Your task to perform on an android device: Open CNN.com Image 0: 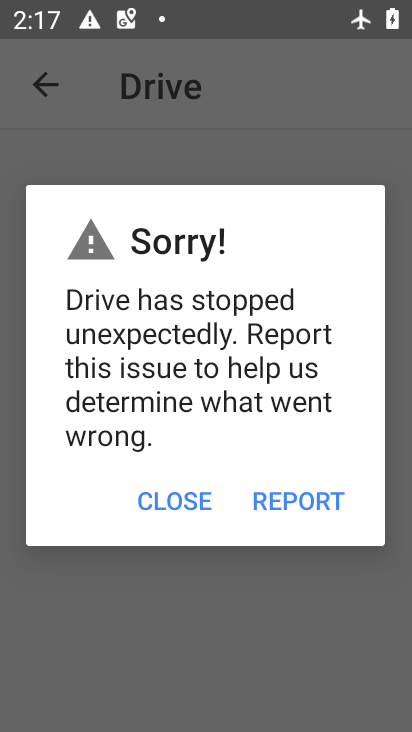
Step 0: press home button
Your task to perform on an android device: Open CNN.com Image 1: 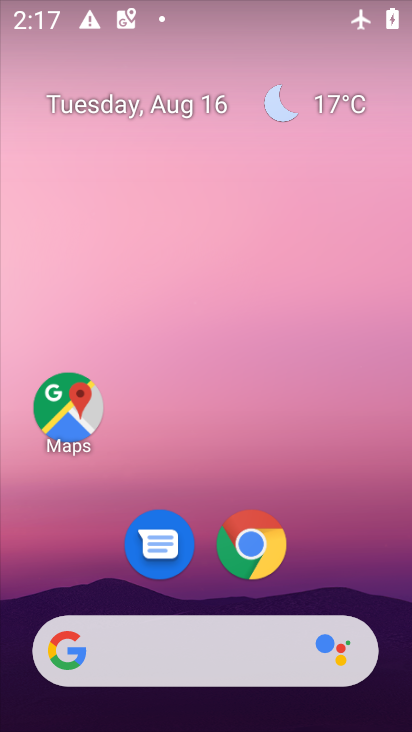
Step 1: click (249, 548)
Your task to perform on an android device: Open CNN.com Image 2: 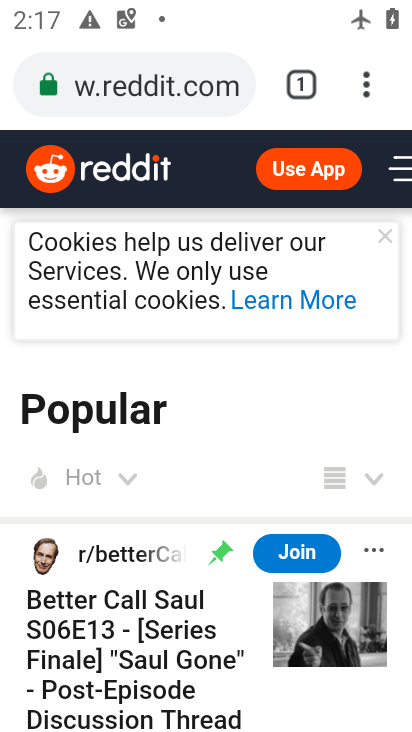
Step 2: click (203, 87)
Your task to perform on an android device: Open CNN.com Image 3: 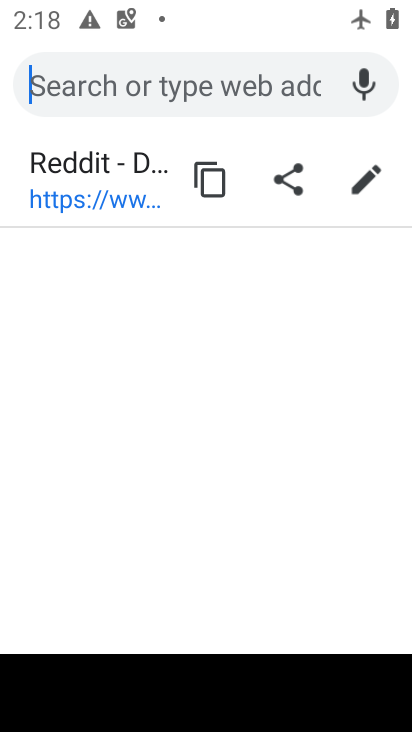
Step 3: type "CNN.com"
Your task to perform on an android device: Open CNN.com Image 4: 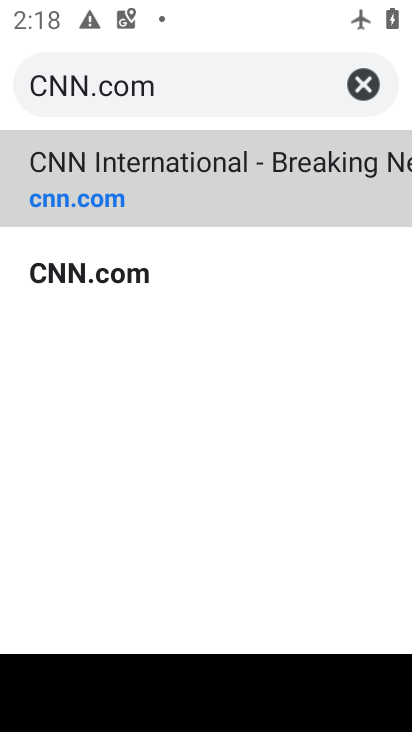
Step 4: click (130, 273)
Your task to perform on an android device: Open CNN.com Image 5: 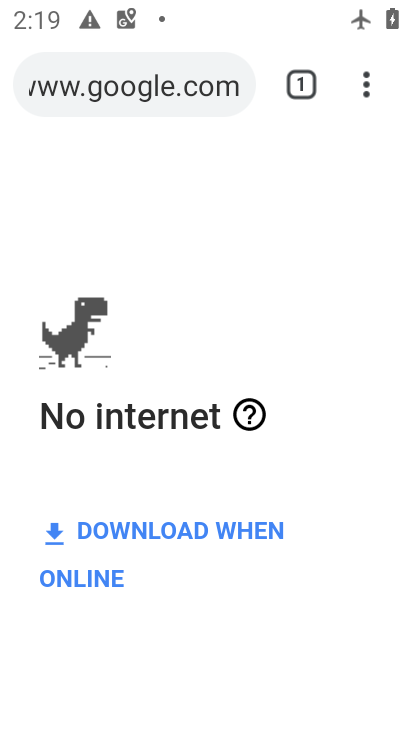
Step 5: task complete